Your task to perform on an android device: turn off notifications in google photos Image 0: 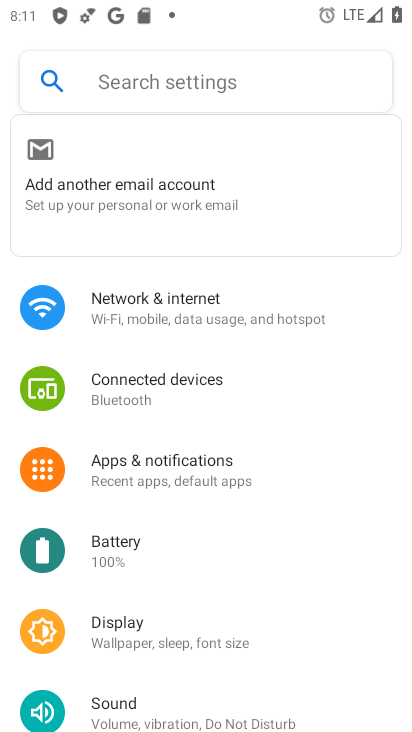
Step 0: click (217, 467)
Your task to perform on an android device: turn off notifications in google photos Image 1: 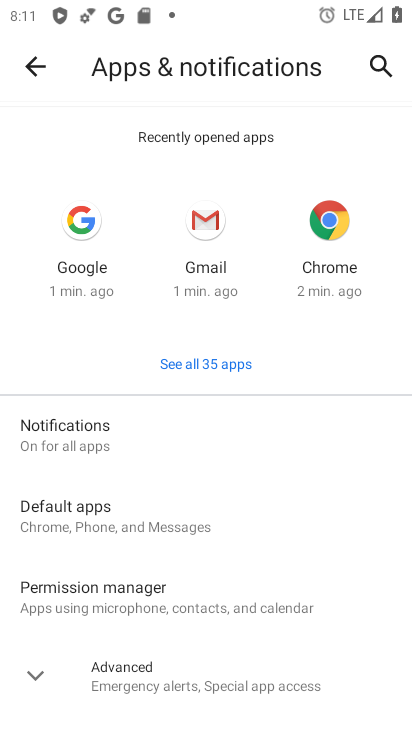
Step 1: click (230, 366)
Your task to perform on an android device: turn off notifications in google photos Image 2: 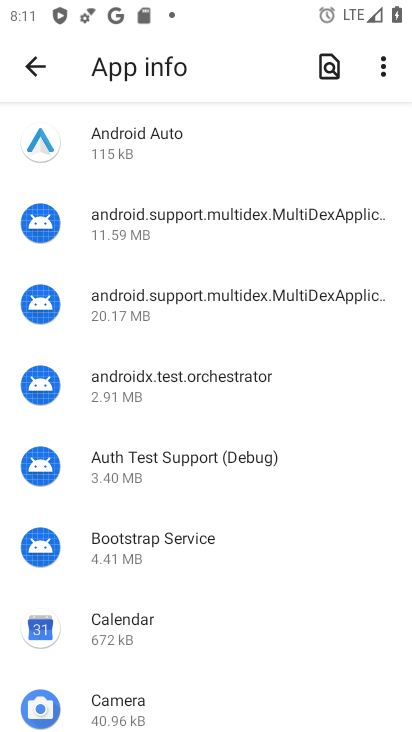
Step 2: drag from (212, 629) to (301, 6)
Your task to perform on an android device: turn off notifications in google photos Image 3: 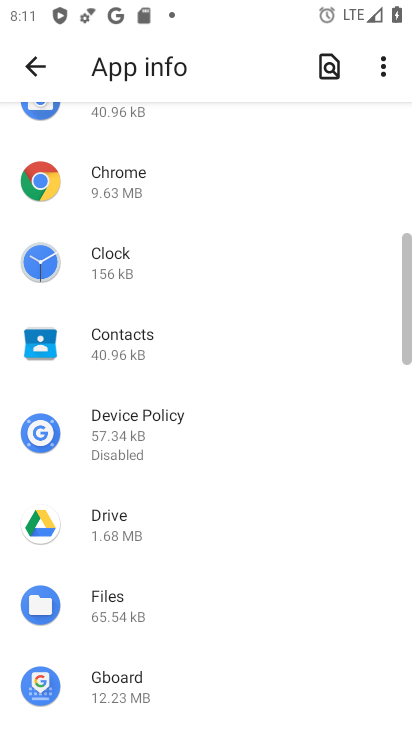
Step 3: drag from (166, 579) to (189, 113)
Your task to perform on an android device: turn off notifications in google photos Image 4: 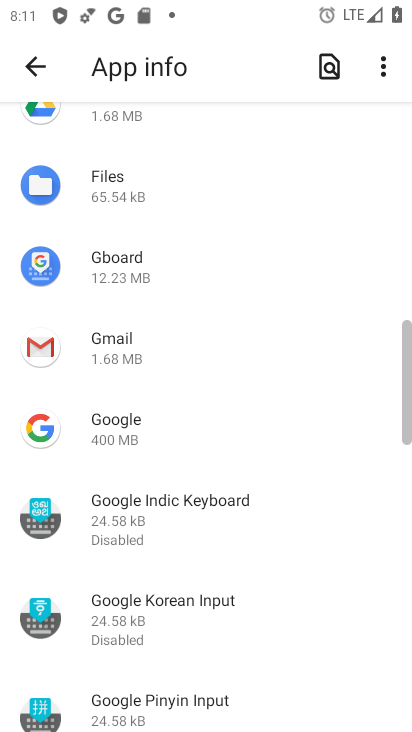
Step 4: drag from (189, 636) to (216, 171)
Your task to perform on an android device: turn off notifications in google photos Image 5: 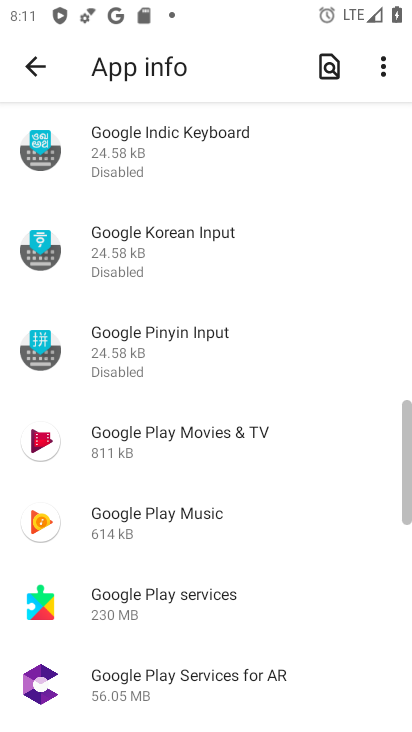
Step 5: drag from (173, 614) to (205, 1)
Your task to perform on an android device: turn off notifications in google photos Image 6: 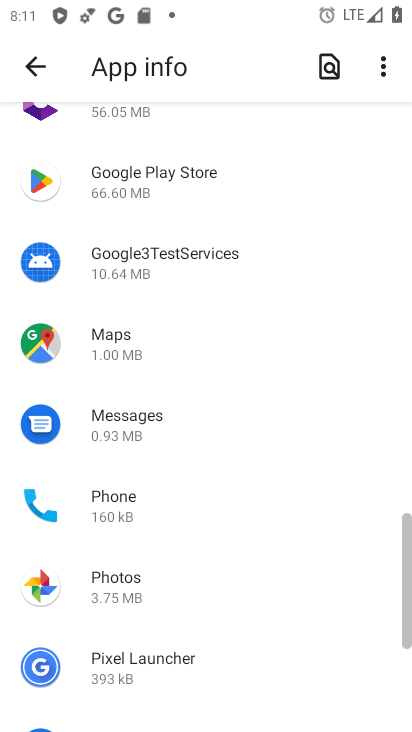
Step 6: click (110, 585)
Your task to perform on an android device: turn off notifications in google photos Image 7: 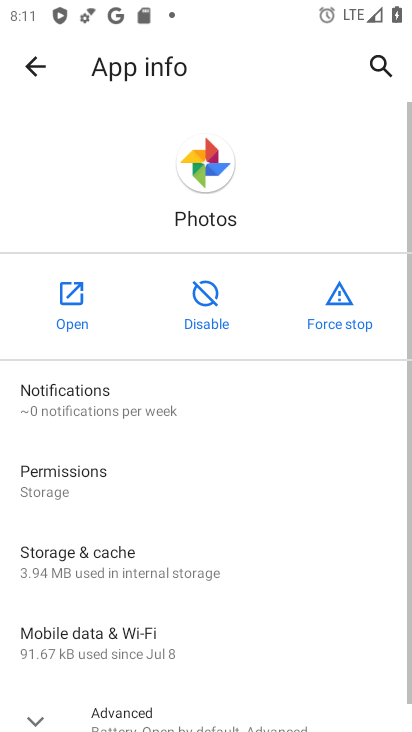
Step 7: click (115, 399)
Your task to perform on an android device: turn off notifications in google photos Image 8: 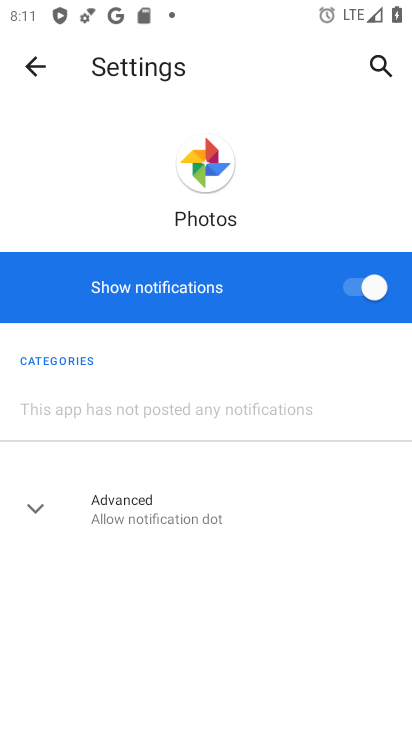
Step 8: click (357, 281)
Your task to perform on an android device: turn off notifications in google photos Image 9: 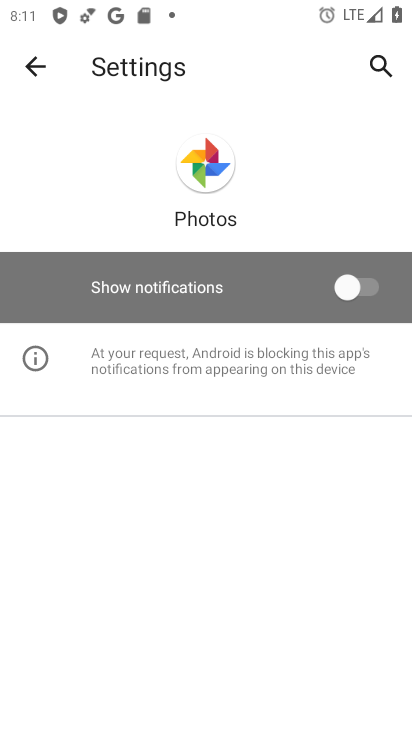
Step 9: task complete